Your task to perform on an android device: Search for seafood restaurants on Google Maps Image 0: 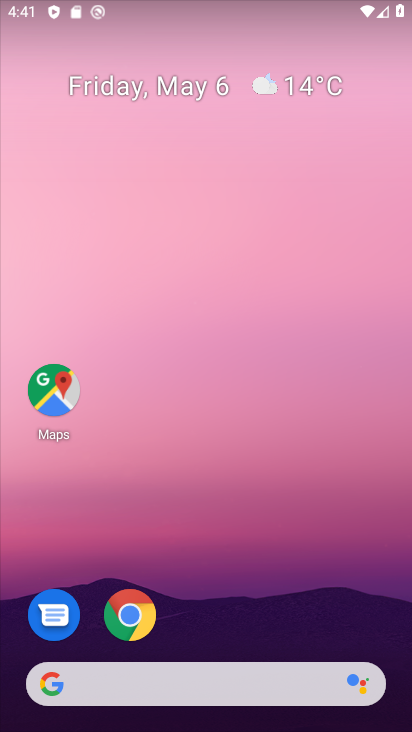
Step 0: click (58, 378)
Your task to perform on an android device: Search for seafood restaurants on Google Maps Image 1: 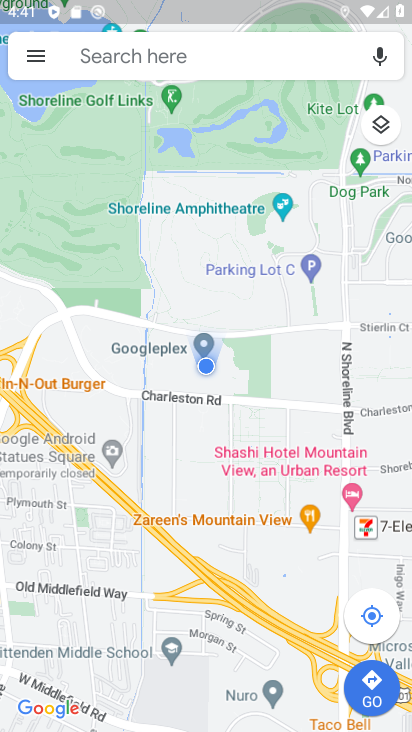
Step 1: click (192, 45)
Your task to perform on an android device: Search for seafood restaurants on Google Maps Image 2: 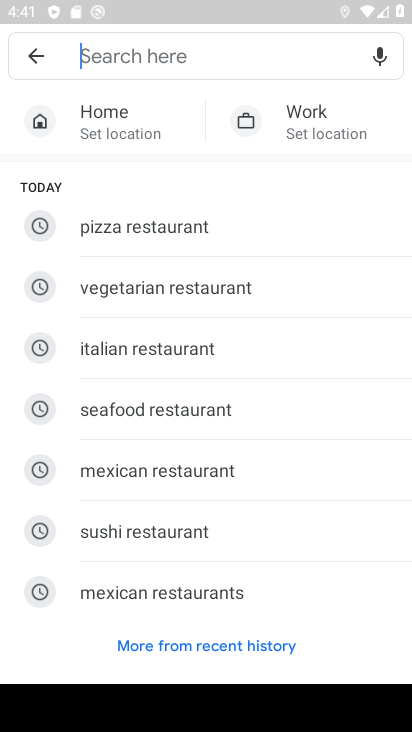
Step 2: click (156, 417)
Your task to perform on an android device: Search for seafood restaurants on Google Maps Image 3: 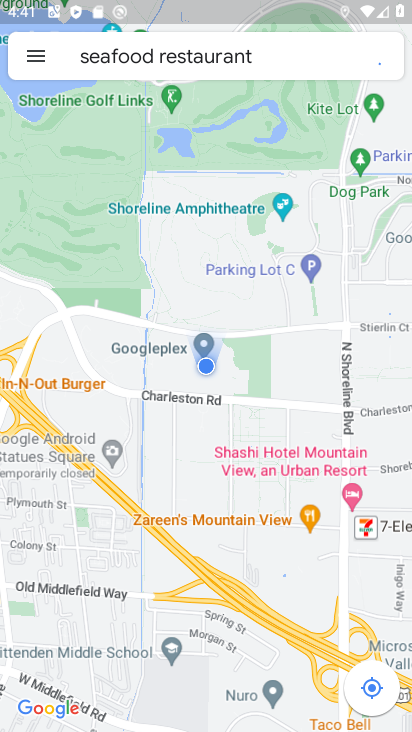
Step 3: task complete